Your task to perform on an android device: Go to eBay Image 0: 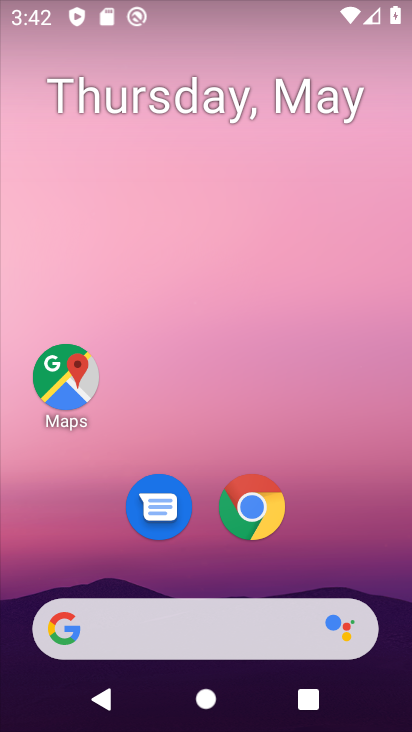
Step 0: click (234, 502)
Your task to perform on an android device: Go to eBay Image 1: 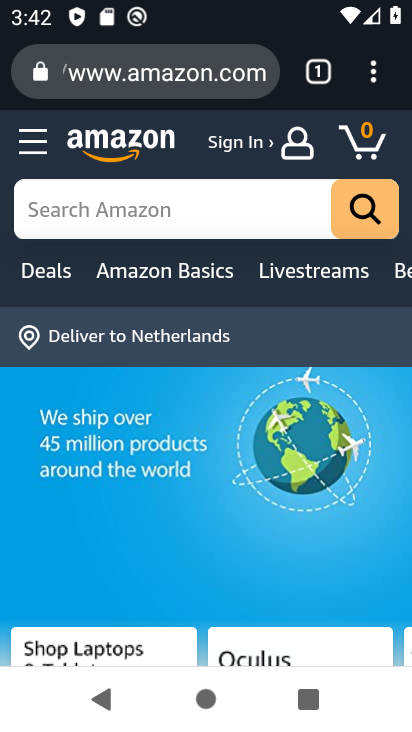
Step 1: click (138, 66)
Your task to perform on an android device: Go to eBay Image 2: 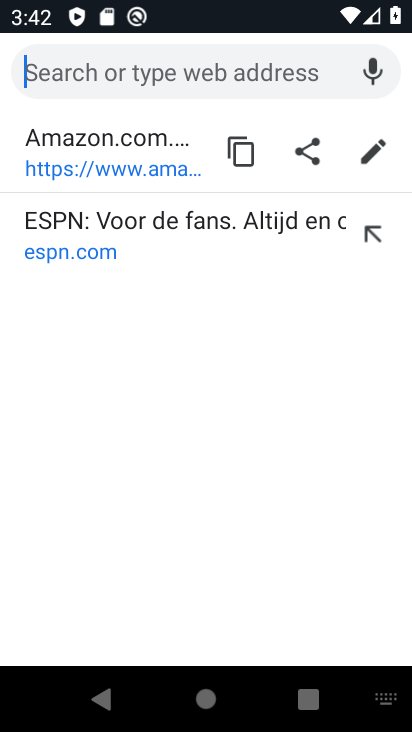
Step 2: type "ebay"
Your task to perform on an android device: Go to eBay Image 3: 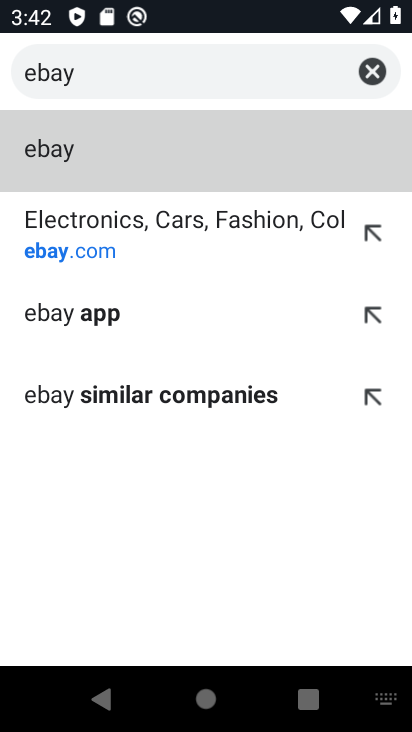
Step 3: click (48, 155)
Your task to perform on an android device: Go to eBay Image 4: 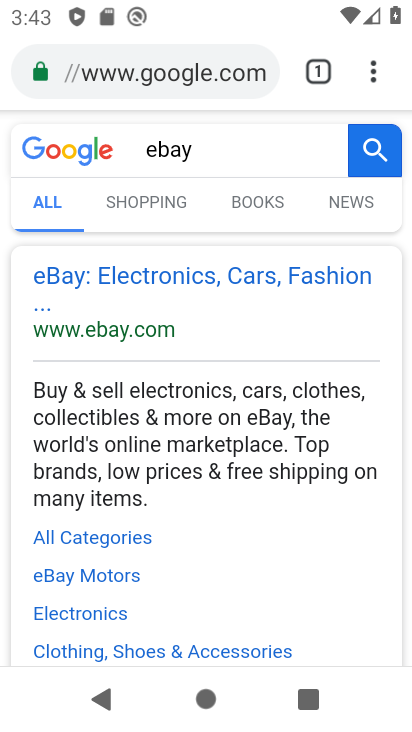
Step 4: click (85, 279)
Your task to perform on an android device: Go to eBay Image 5: 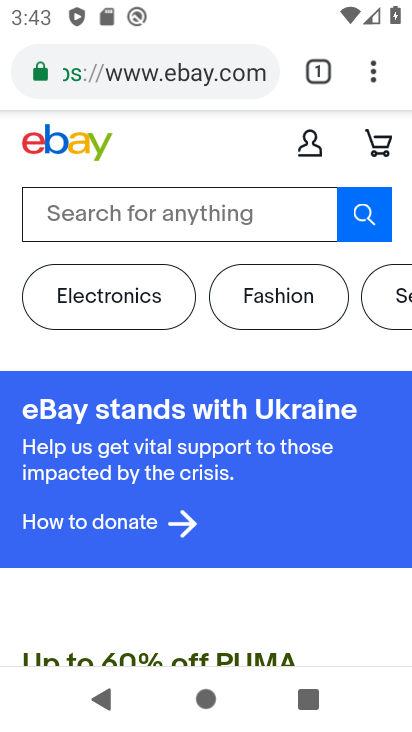
Step 5: task complete